Your task to perform on an android device: Go to network settings Image 0: 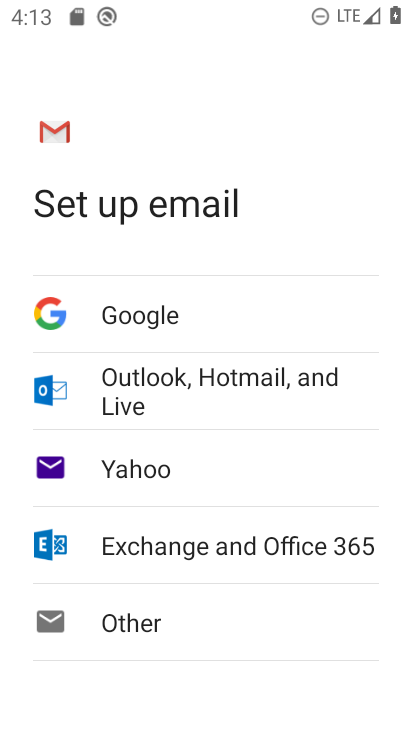
Step 0: press home button
Your task to perform on an android device: Go to network settings Image 1: 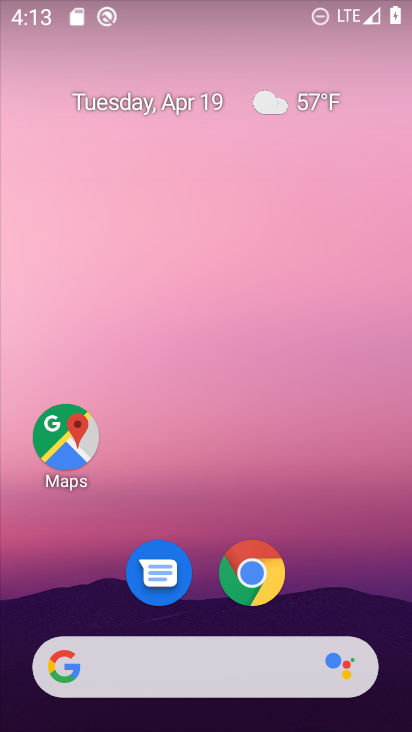
Step 1: drag from (351, 598) to (356, 0)
Your task to perform on an android device: Go to network settings Image 2: 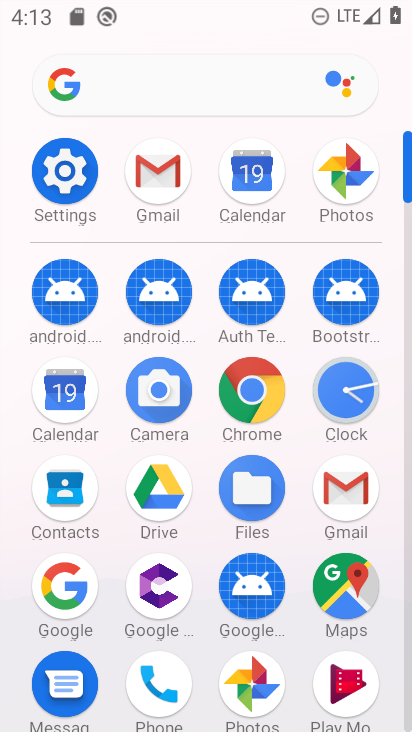
Step 2: click (66, 168)
Your task to perform on an android device: Go to network settings Image 3: 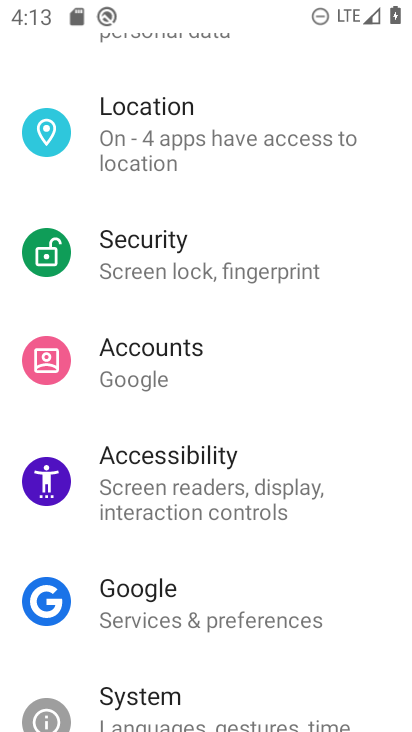
Step 3: drag from (352, 190) to (378, 504)
Your task to perform on an android device: Go to network settings Image 4: 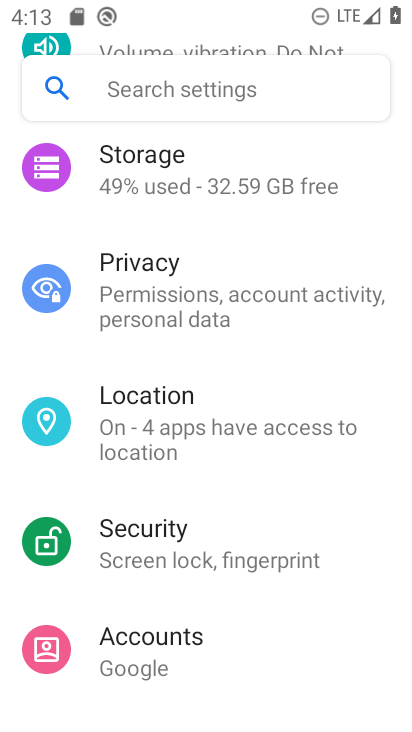
Step 4: drag from (376, 285) to (382, 538)
Your task to perform on an android device: Go to network settings Image 5: 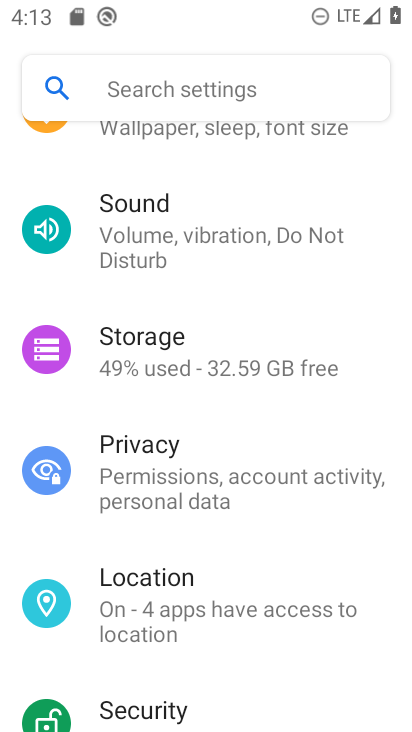
Step 5: drag from (329, 199) to (339, 592)
Your task to perform on an android device: Go to network settings Image 6: 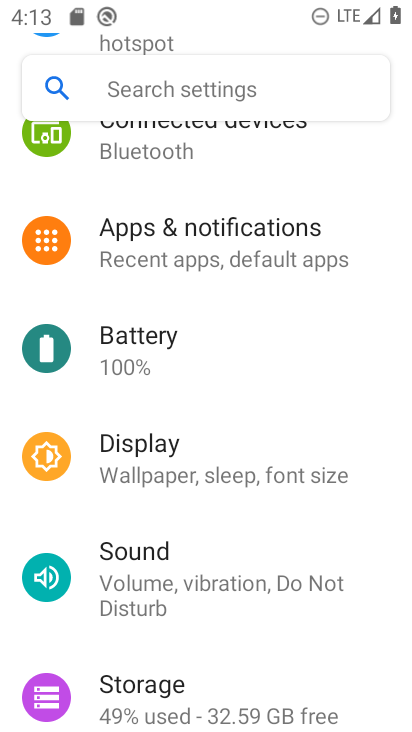
Step 6: drag from (372, 202) to (357, 496)
Your task to perform on an android device: Go to network settings Image 7: 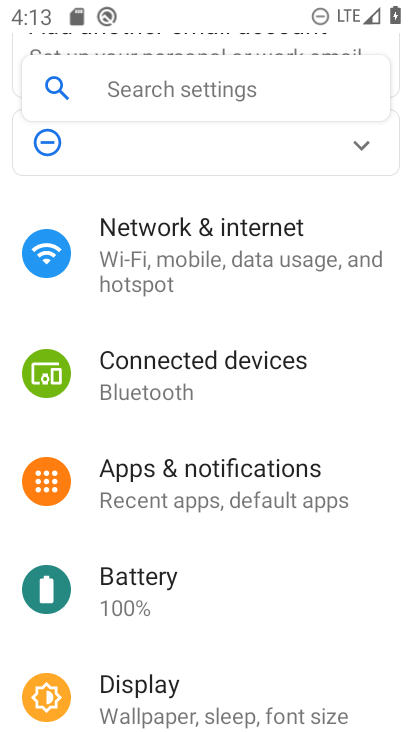
Step 7: click (230, 250)
Your task to perform on an android device: Go to network settings Image 8: 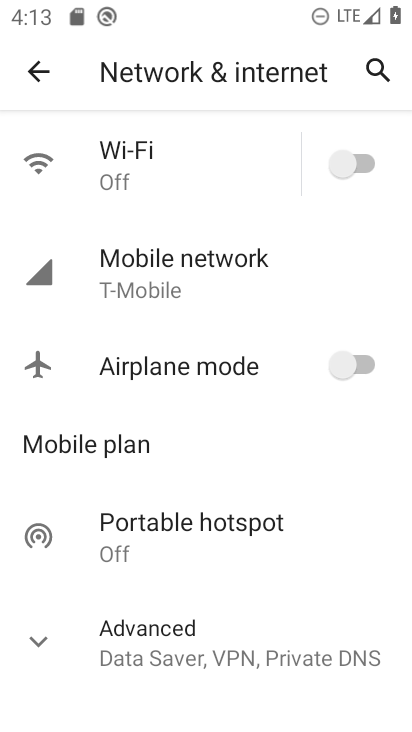
Step 8: click (171, 278)
Your task to perform on an android device: Go to network settings Image 9: 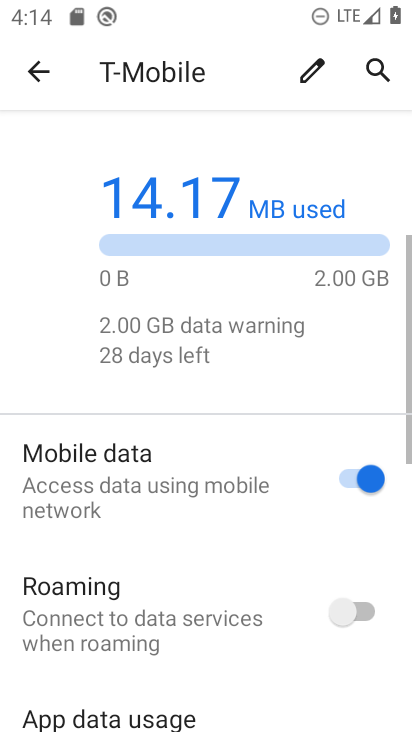
Step 9: drag from (178, 500) to (189, 243)
Your task to perform on an android device: Go to network settings Image 10: 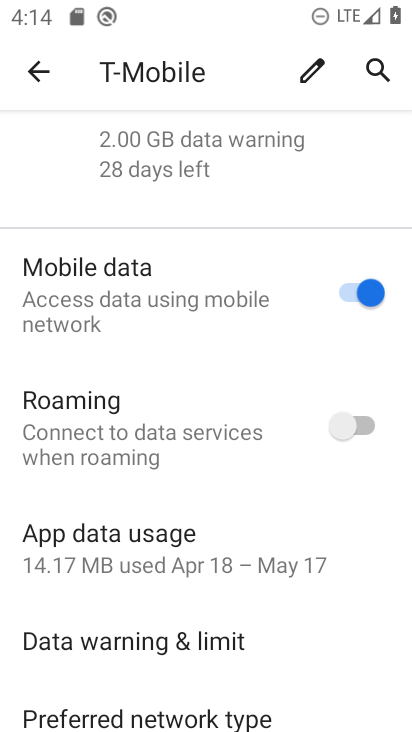
Step 10: drag from (159, 517) to (158, 231)
Your task to perform on an android device: Go to network settings Image 11: 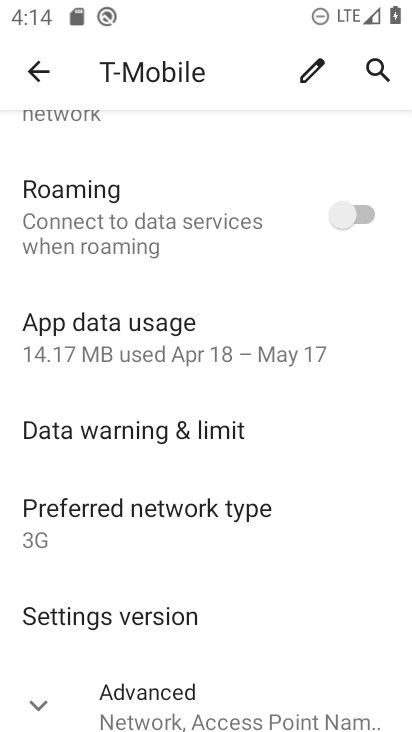
Step 11: drag from (139, 452) to (151, 252)
Your task to perform on an android device: Go to network settings Image 12: 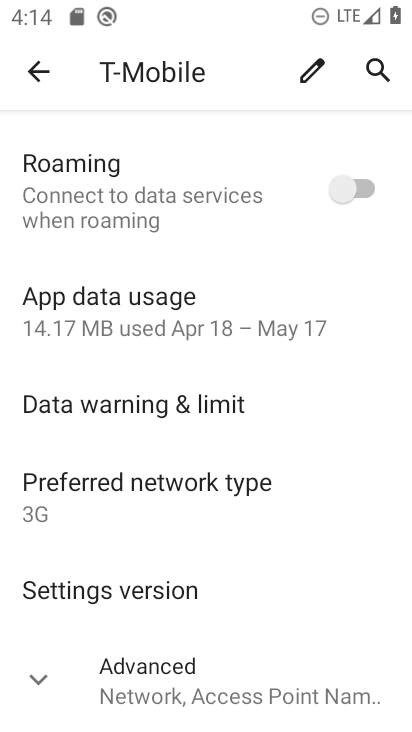
Step 12: click (40, 680)
Your task to perform on an android device: Go to network settings Image 13: 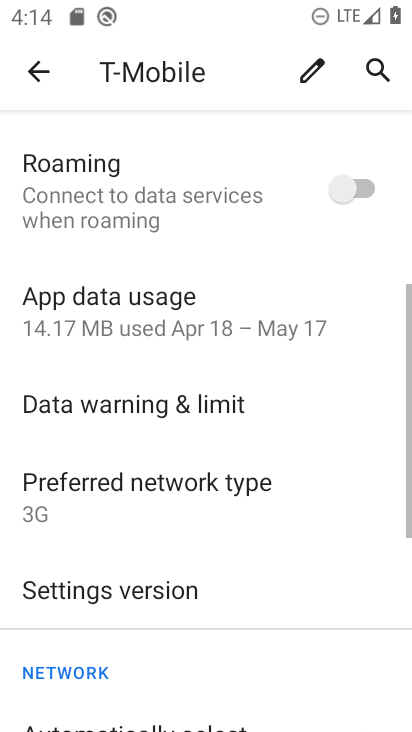
Step 13: task complete